Your task to perform on an android device: open device folders in google photos Image 0: 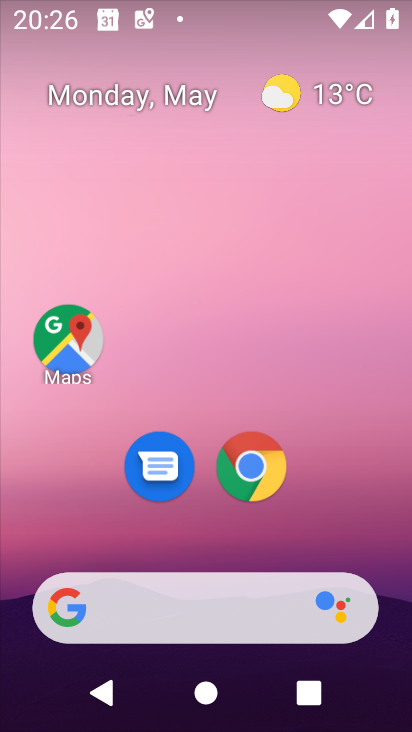
Step 0: drag from (292, 526) to (313, 228)
Your task to perform on an android device: open device folders in google photos Image 1: 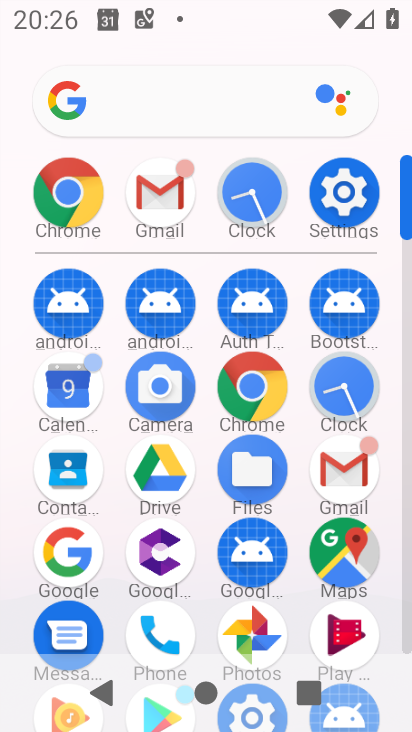
Step 1: click (237, 622)
Your task to perform on an android device: open device folders in google photos Image 2: 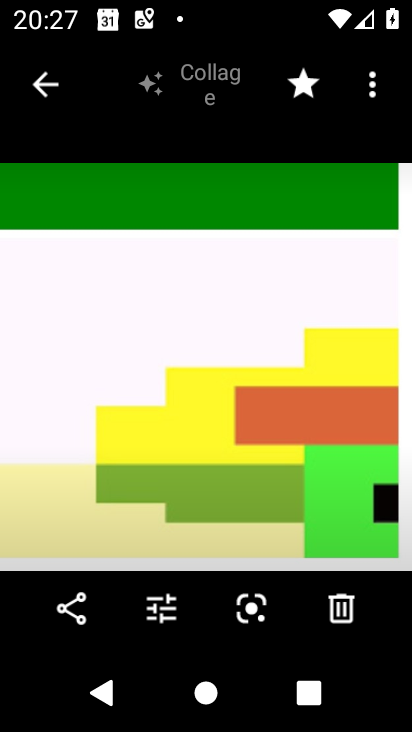
Step 2: task complete